Your task to perform on an android device: open app "The Home Depot" (install if not already installed) Image 0: 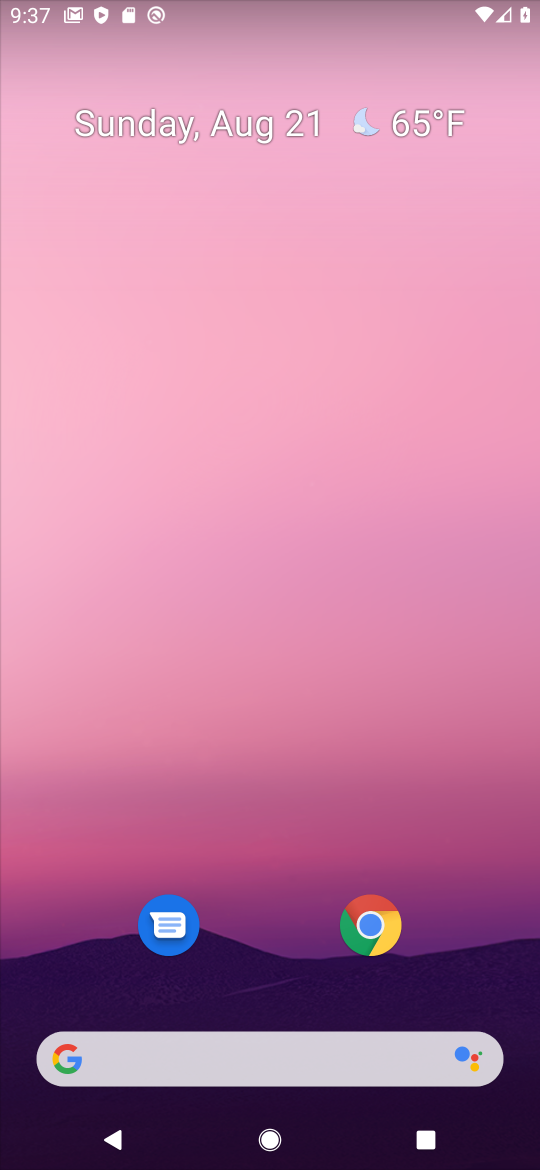
Step 0: drag from (289, 981) to (379, 9)
Your task to perform on an android device: open app "The Home Depot" (install if not already installed) Image 1: 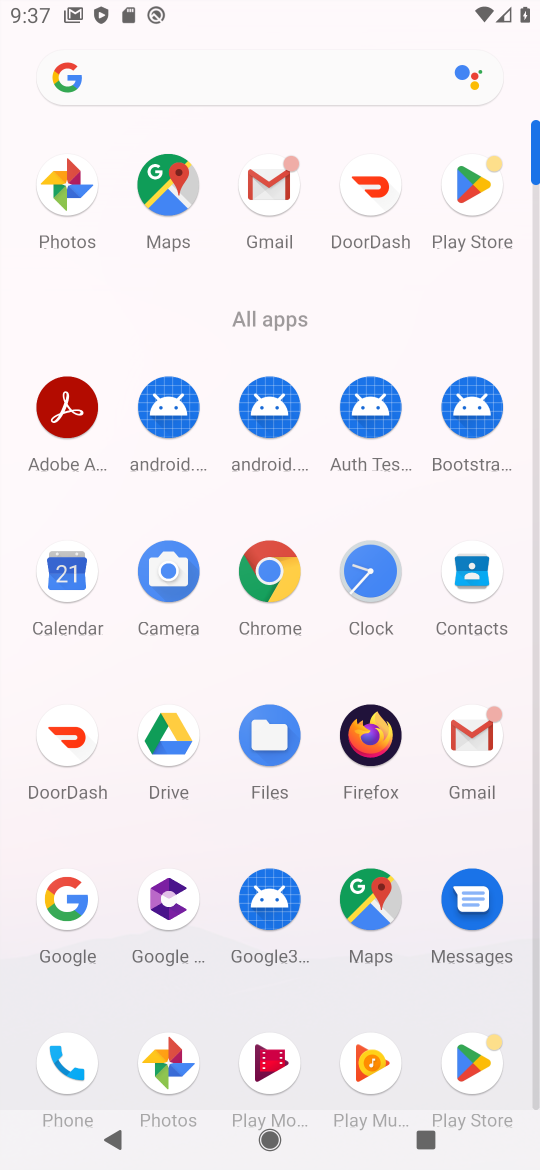
Step 1: click (459, 186)
Your task to perform on an android device: open app "The Home Depot" (install if not already installed) Image 2: 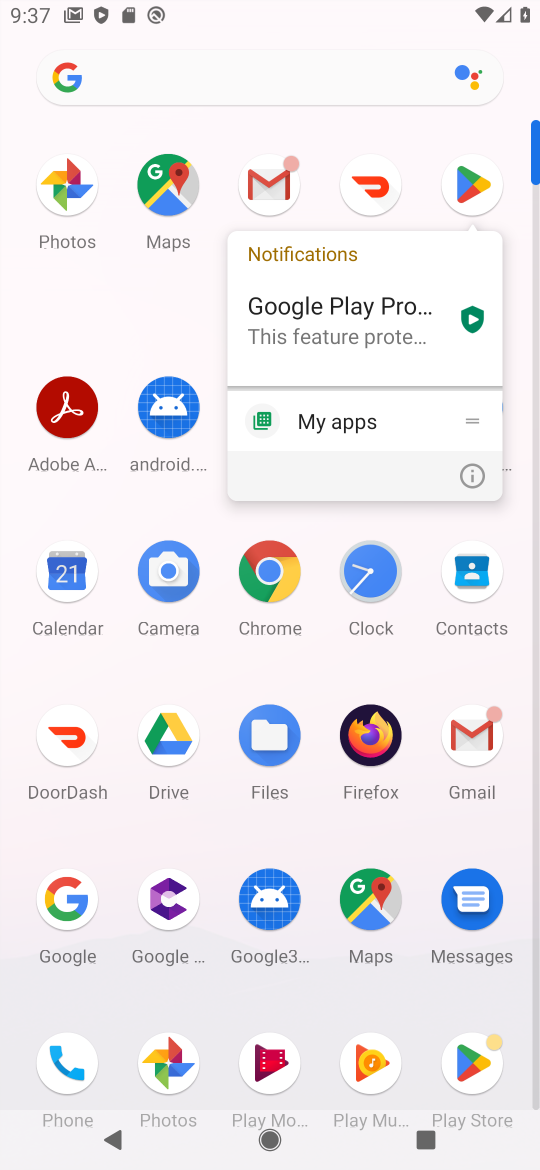
Step 2: click (496, 174)
Your task to perform on an android device: open app "The Home Depot" (install if not already installed) Image 3: 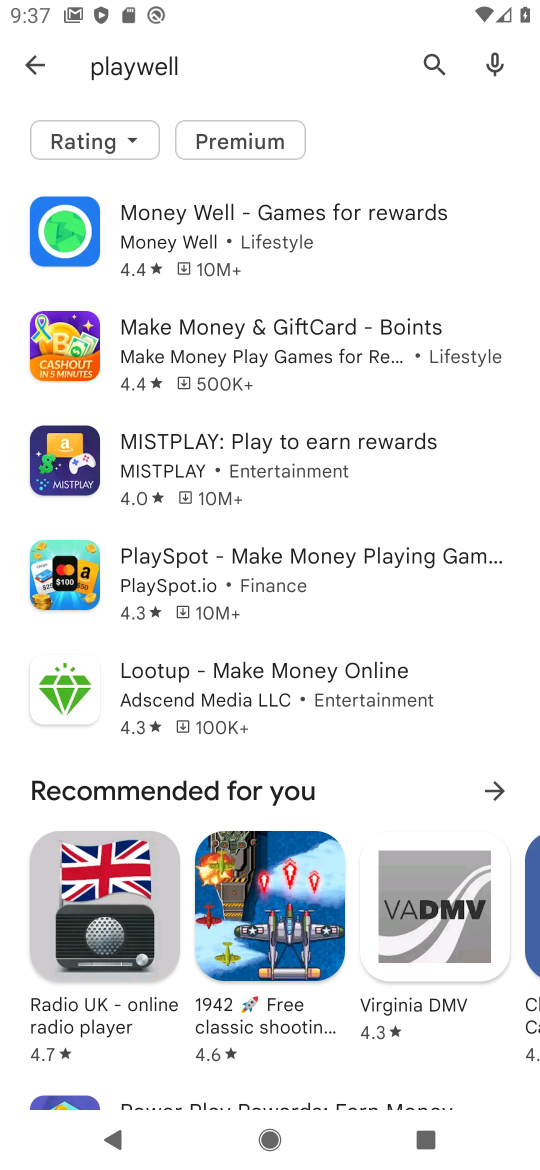
Step 3: click (449, 69)
Your task to perform on an android device: open app "The Home Depot" (install if not already installed) Image 4: 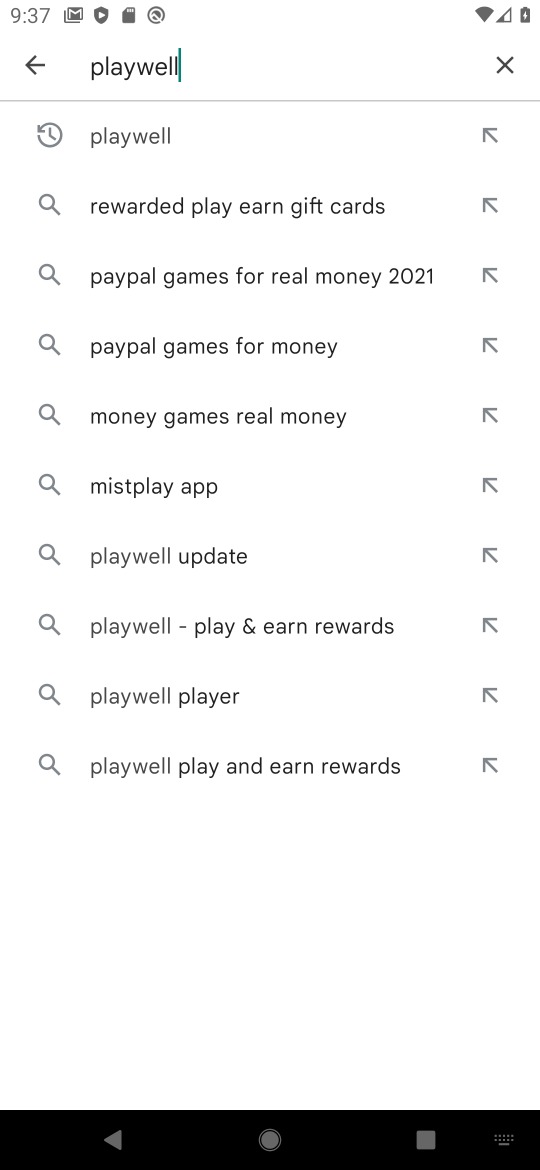
Step 4: click (512, 58)
Your task to perform on an android device: open app "The Home Depot" (install if not already installed) Image 5: 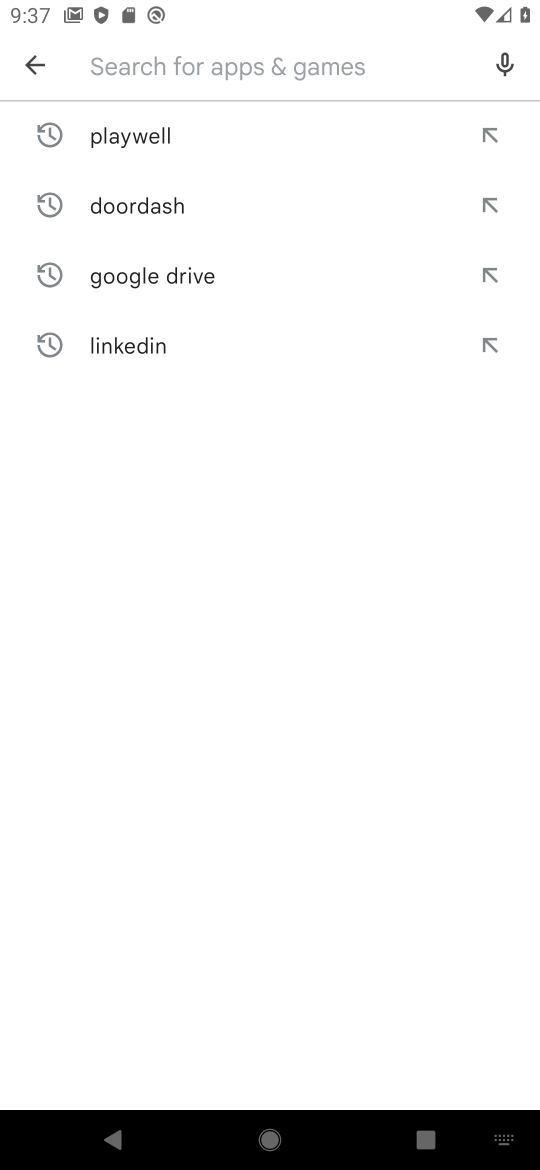
Step 5: click (187, 76)
Your task to perform on an android device: open app "The Home Depot" (install if not already installed) Image 6: 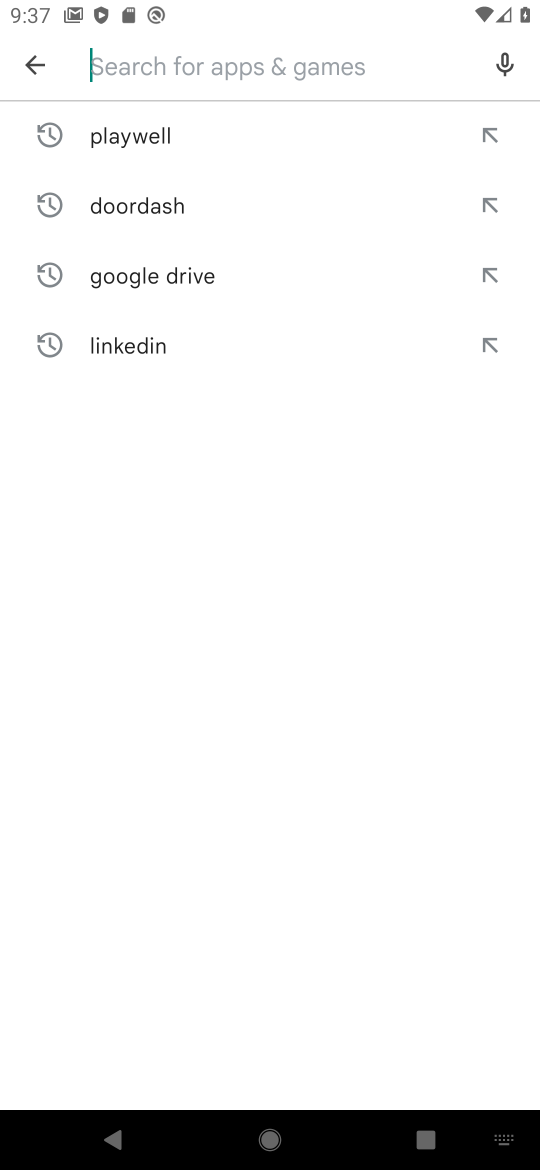
Step 6: type "The Home Depot"
Your task to perform on an android device: open app "The Home Depot" (install if not already installed) Image 7: 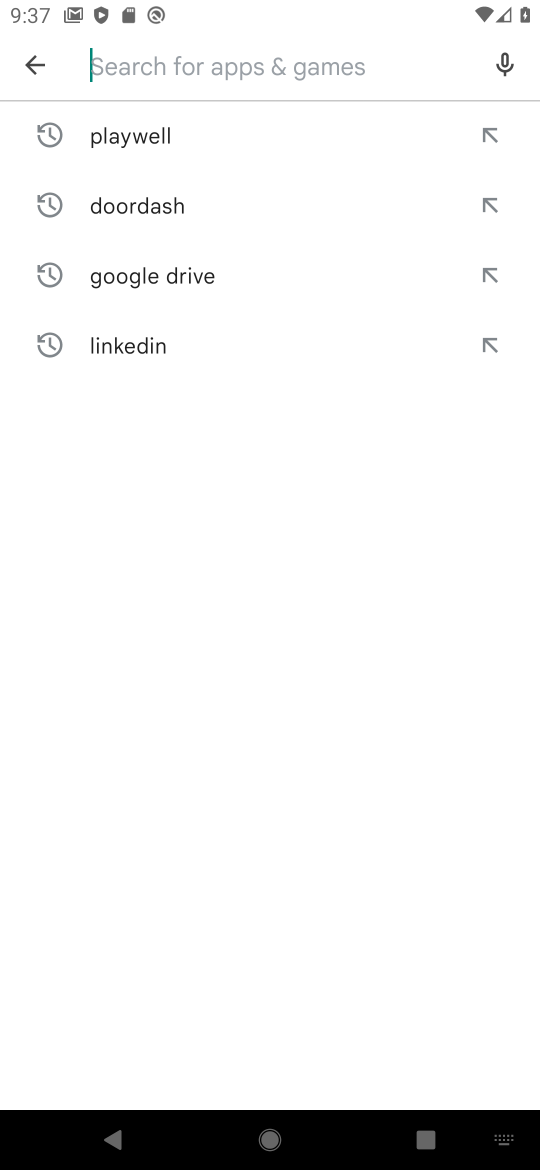
Step 7: click (289, 607)
Your task to perform on an android device: open app "The Home Depot" (install if not already installed) Image 8: 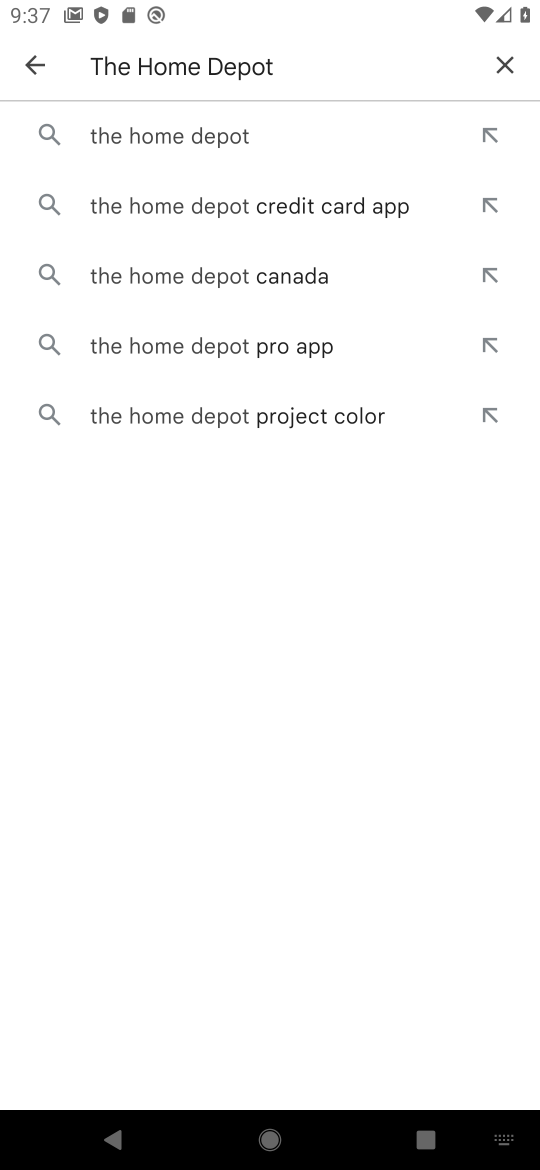
Step 8: click (228, 132)
Your task to perform on an android device: open app "The Home Depot" (install if not already installed) Image 9: 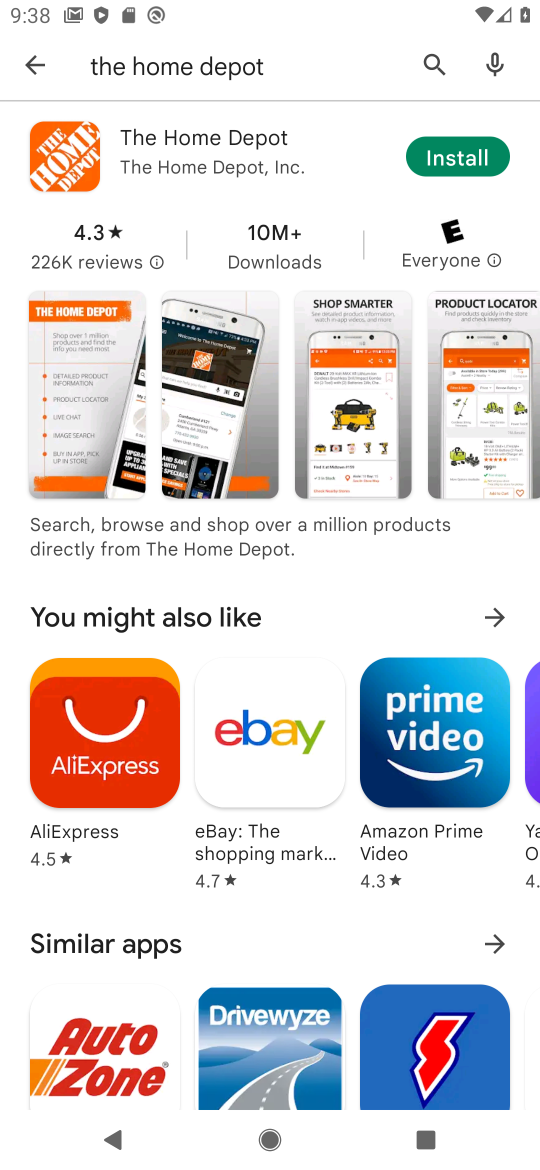
Step 9: click (448, 163)
Your task to perform on an android device: open app "The Home Depot" (install if not already installed) Image 10: 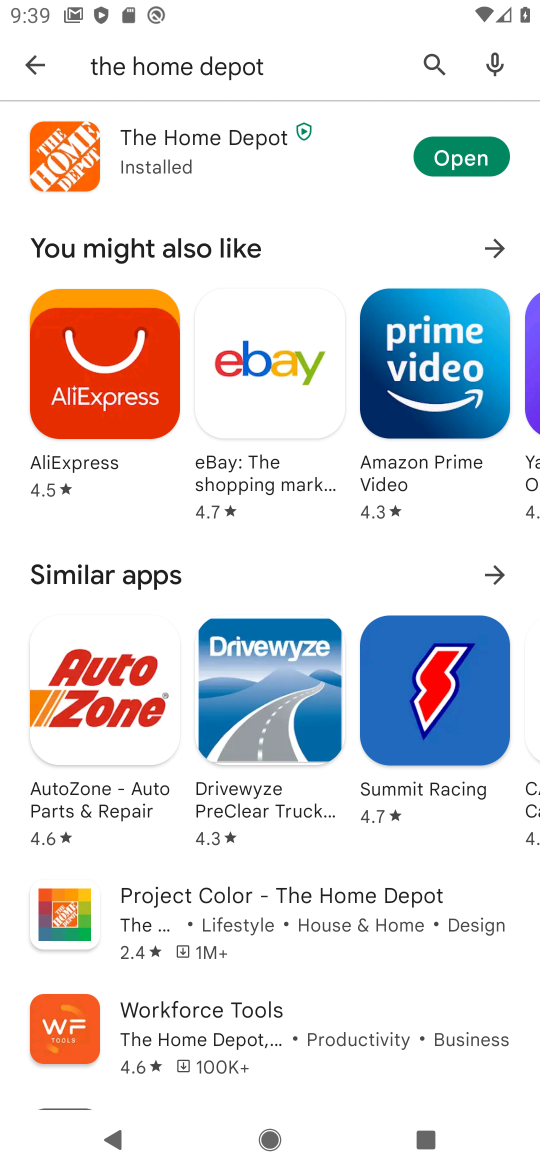
Step 10: click (448, 161)
Your task to perform on an android device: open app "The Home Depot" (install if not already installed) Image 11: 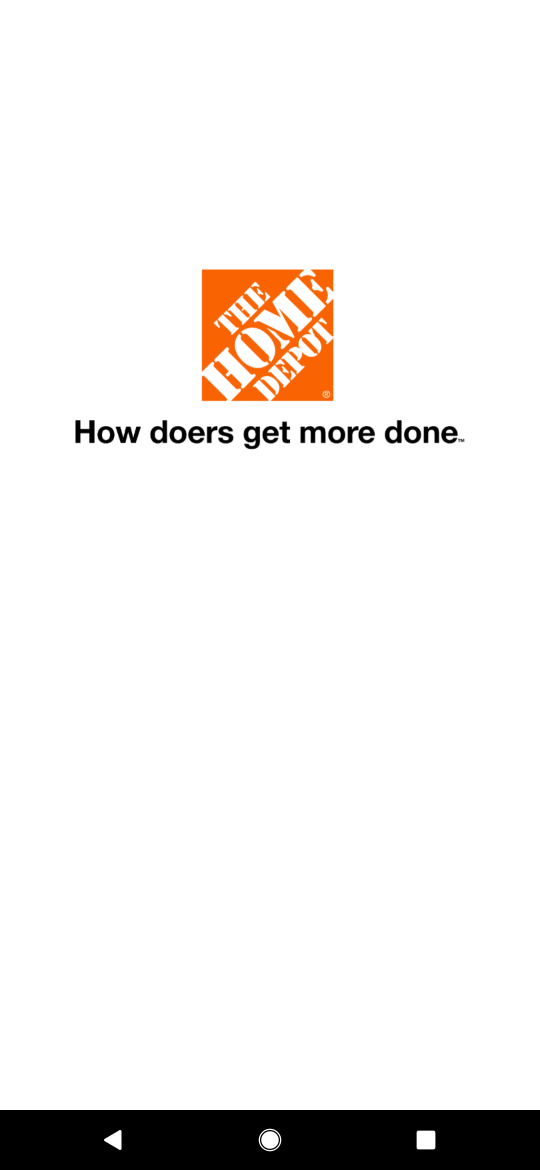
Step 11: task complete